Your task to perform on an android device: make emails show in primary in the gmail app Image 0: 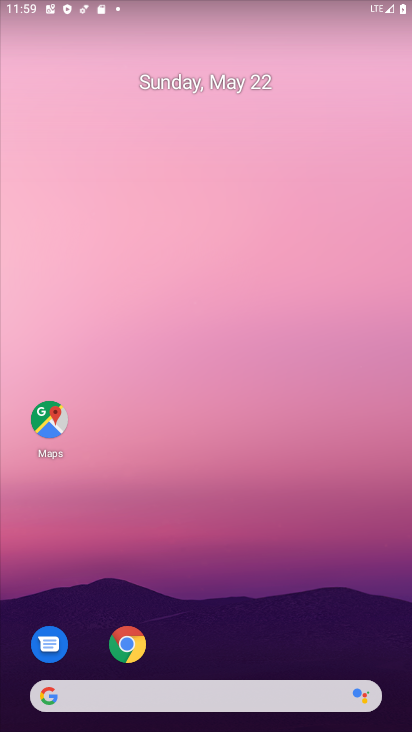
Step 0: drag from (316, 641) to (278, 0)
Your task to perform on an android device: make emails show in primary in the gmail app Image 1: 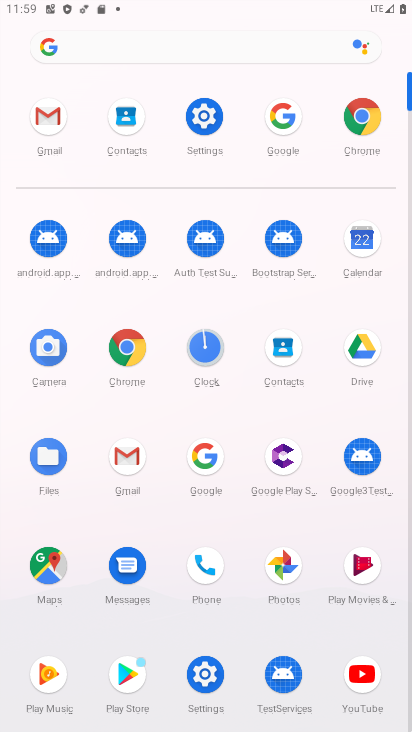
Step 1: click (140, 468)
Your task to perform on an android device: make emails show in primary in the gmail app Image 2: 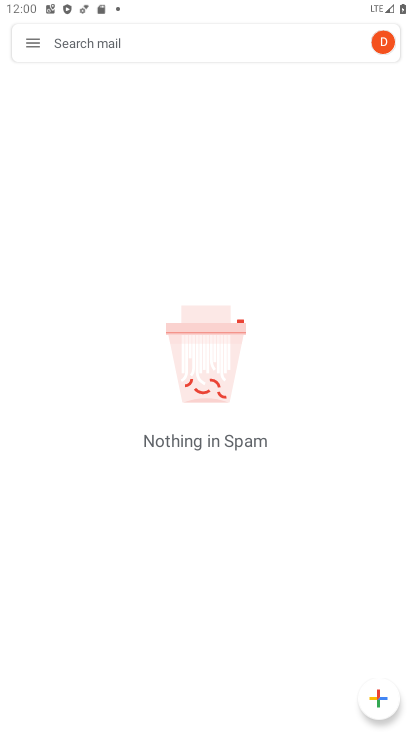
Step 2: task complete